Your task to perform on an android device: Search for vegetarian restaurants on Maps Image 0: 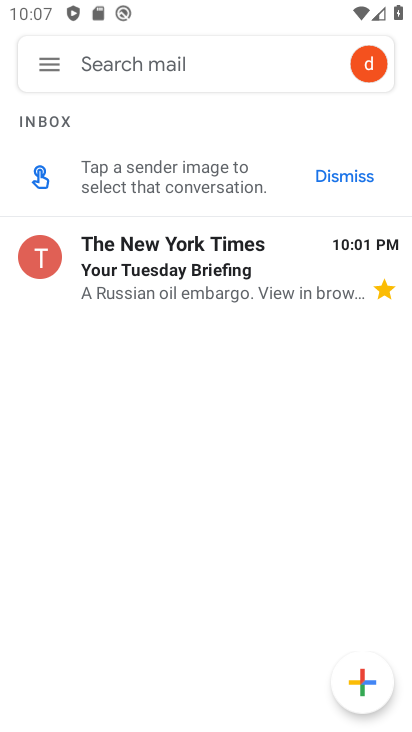
Step 0: click (398, 410)
Your task to perform on an android device: Search for vegetarian restaurants on Maps Image 1: 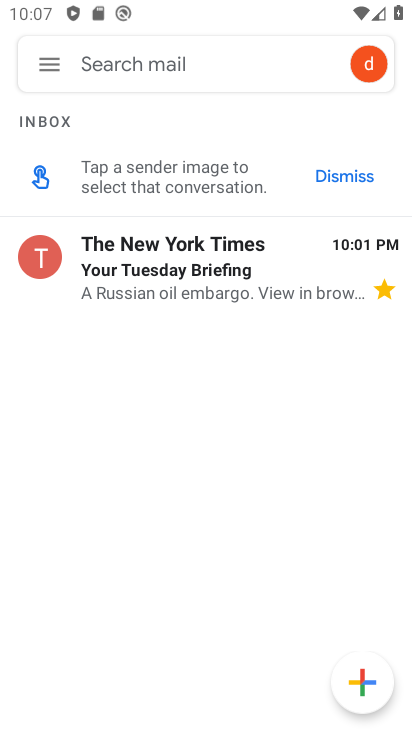
Step 1: press home button
Your task to perform on an android device: Search for vegetarian restaurants on Maps Image 2: 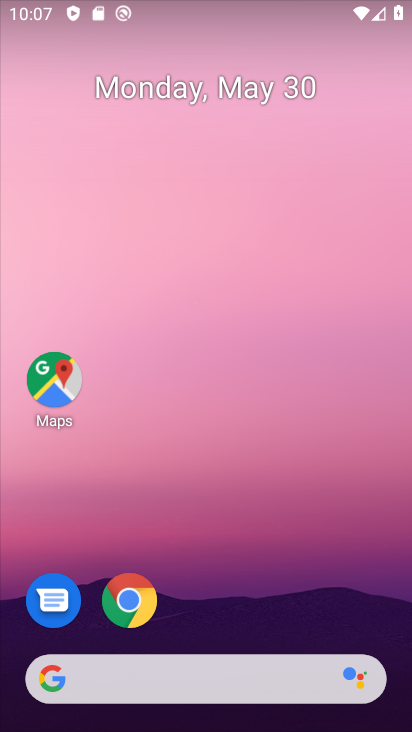
Step 2: click (59, 377)
Your task to perform on an android device: Search for vegetarian restaurants on Maps Image 3: 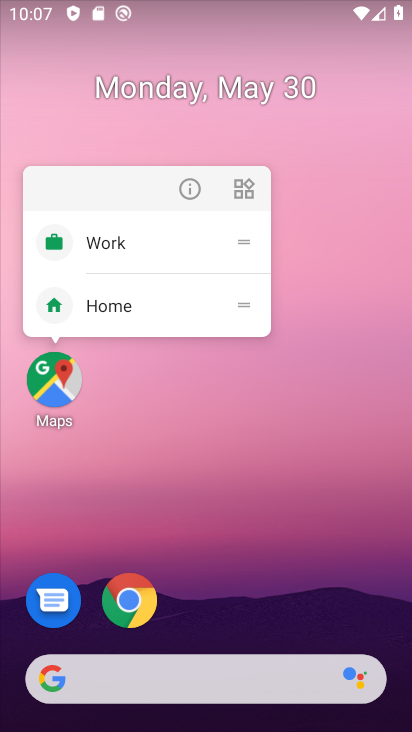
Step 3: click (51, 388)
Your task to perform on an android device: Search for vegetarian restaurants on Maps Image 4: 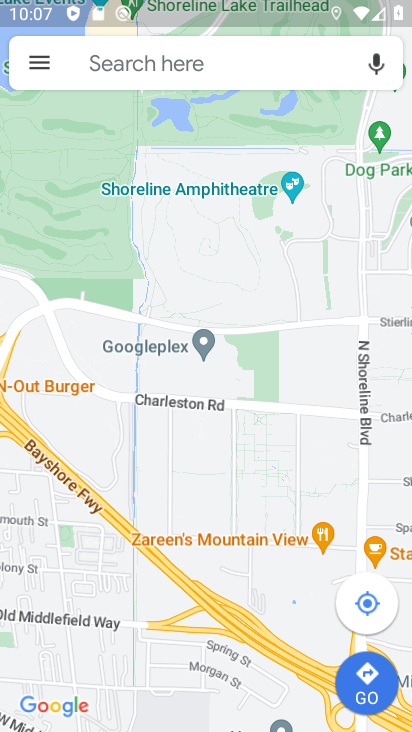
Step 4: click (168, 55)
Your task to perform on an android device: Search for vegetarian restaurants on Maps Image 5: 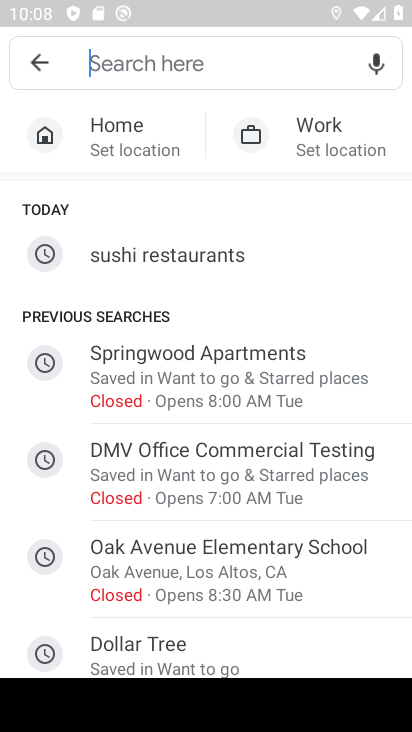
Step 5: type "vegetarian restaurants"
Your task to perform on an android device: Search for vegetarian restaurants on Maps Image 6: 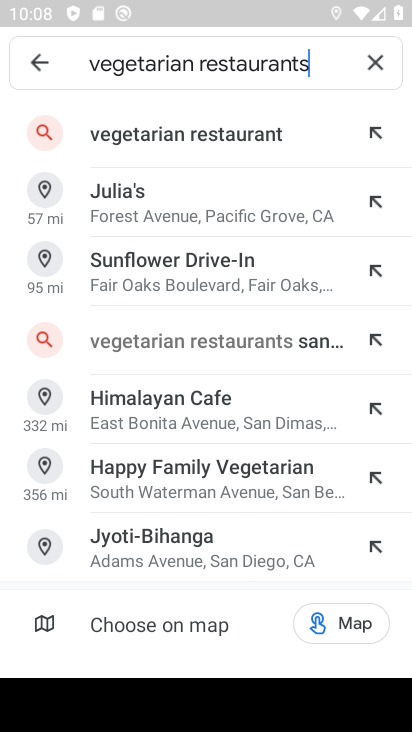
Step 6: click (220, 131)
Your task to perform on an android device: Search for vegetarian restaurants on Maps Image 7: 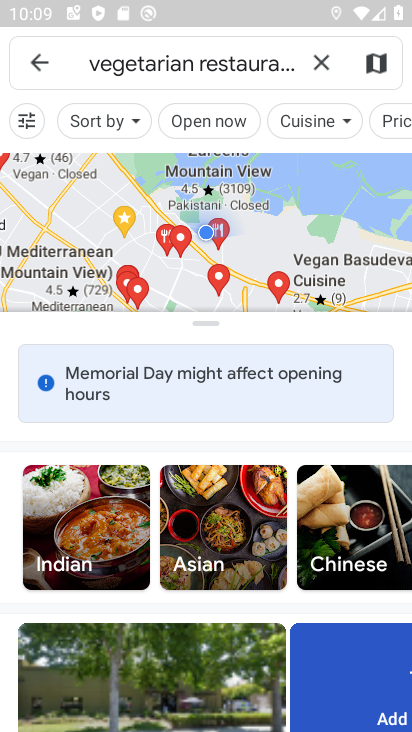
Step 7: task complete